Your task to perform on an android device: Open Amazon Image 0: 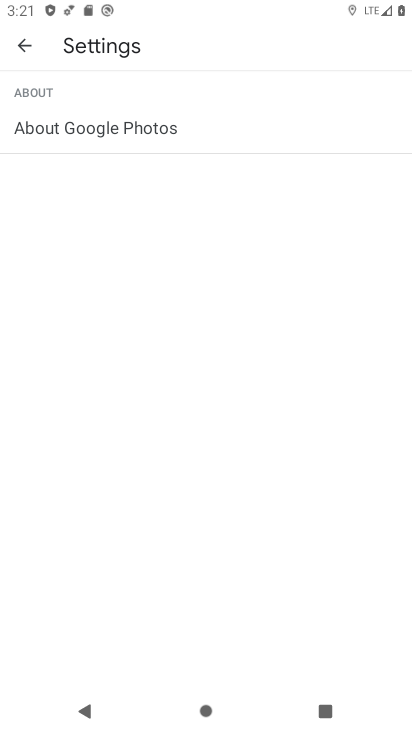
Step 0: press home button
Your task to perform on an android device: Open Amazon Image 1: 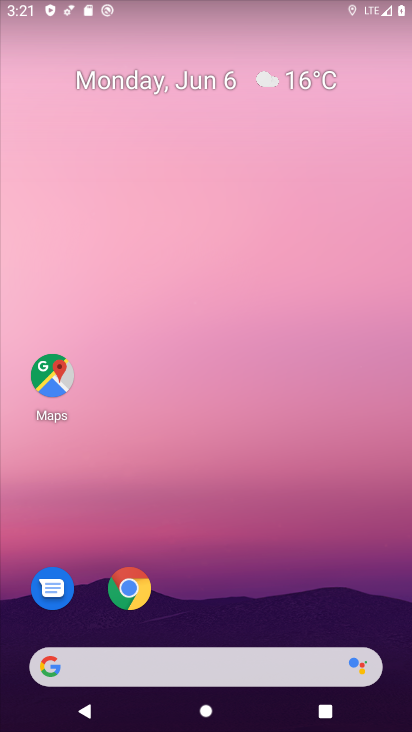
Step 1: click (127, 586)
Your task to perform on an android device: Open Amazon Image 2: 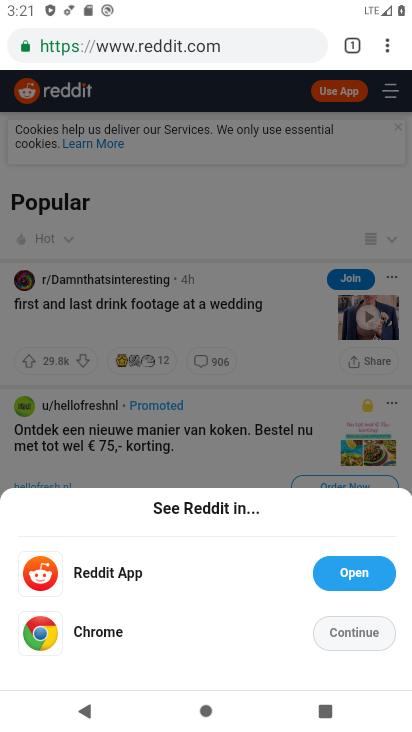
Step 2: click (353, 39)
Your task to perform on an android device: Open Amazon Image 3: 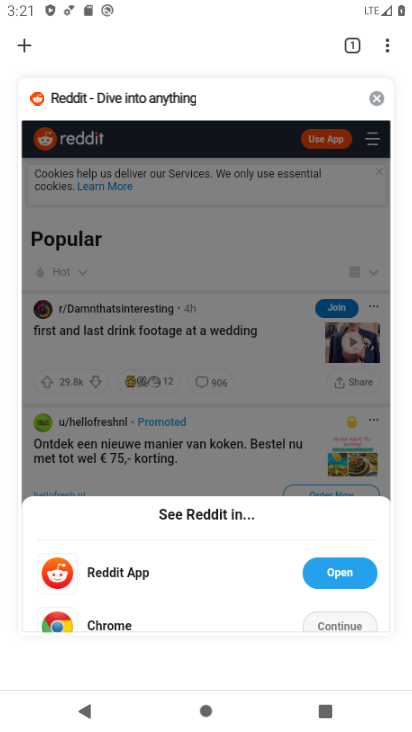
Step 3: click (26, 43)
Your task to perform on an android device: Open Amazon Image 4: 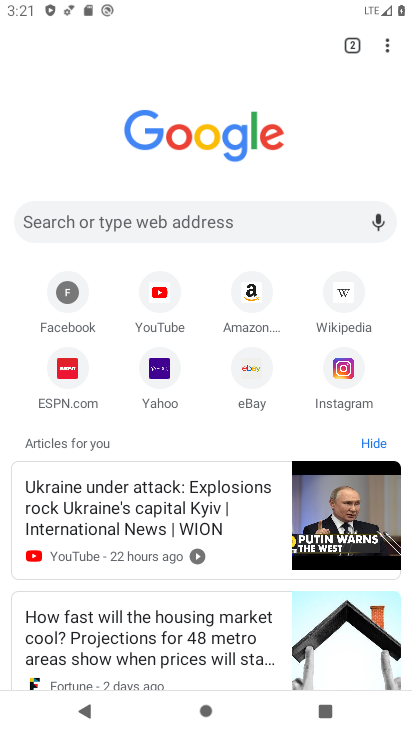
Step 4: click (253, 314)
Your task to perform on an android device: Open Amazon Image 5: 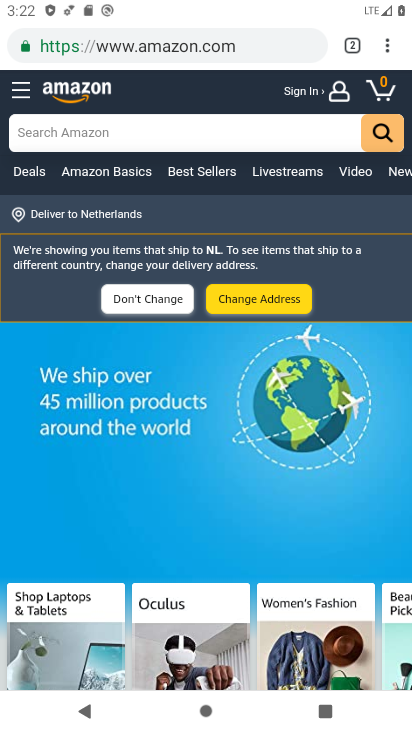
Step 5: task complete